Your task to perform on an android device: Open battery settings Image 0: 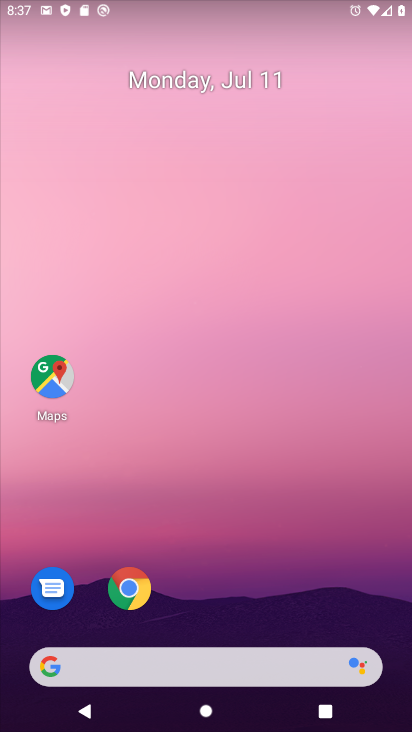
Step 0: drag from (182, 669) to (292, 169)
Your task to perform on an android device: Open battery settings Image 1: 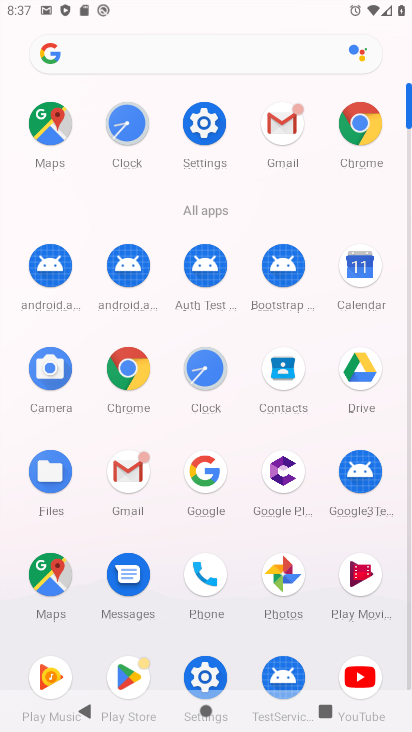
Step 1: click (210, 111)
Your task to perform on an android device: Open battery settings Image 2: 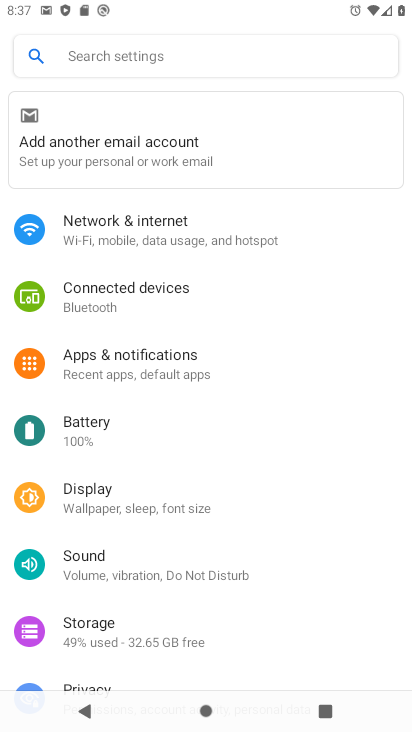
Step 2: click (90, 441)
Your task to perform on an android device: Open battery settings Image 3: 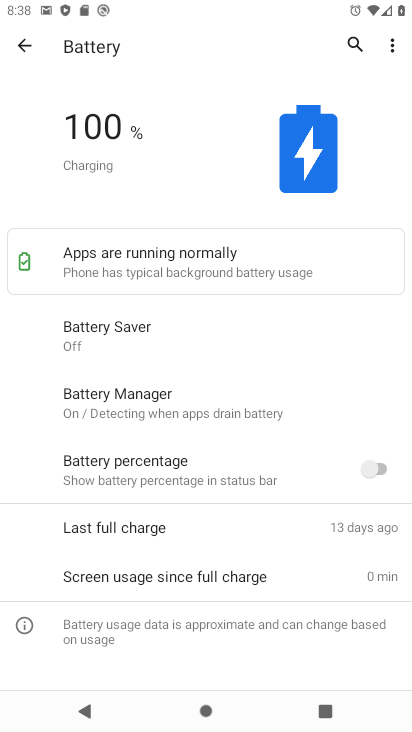
Step 3: task complete